Your task to perform on an android device: Do I have any events this weekend? Image 0: 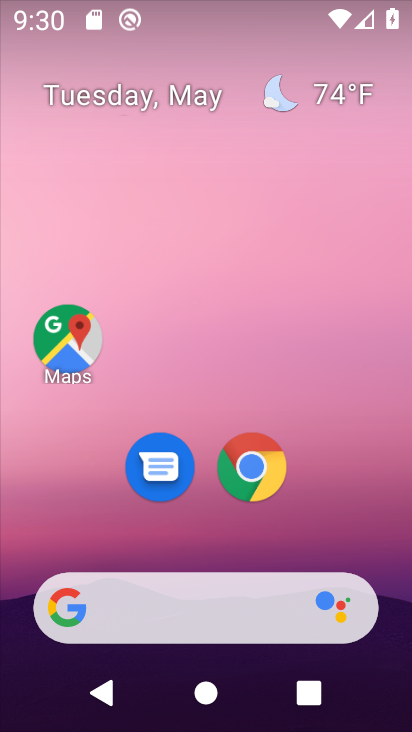
Step 0: drag from (337, 535) to (311, 108)
Your task to perform on an android device: Do I have any events this weekend? Image 1: 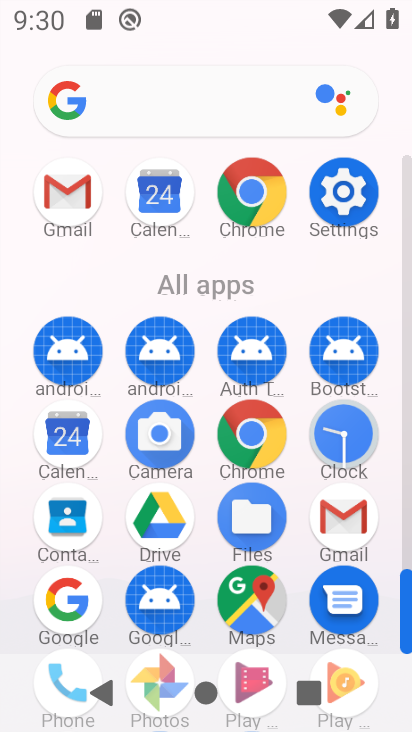
Step 1: click (61, 444)
Your task to perform on an android device: Do I have any events this weekend? Image 2: 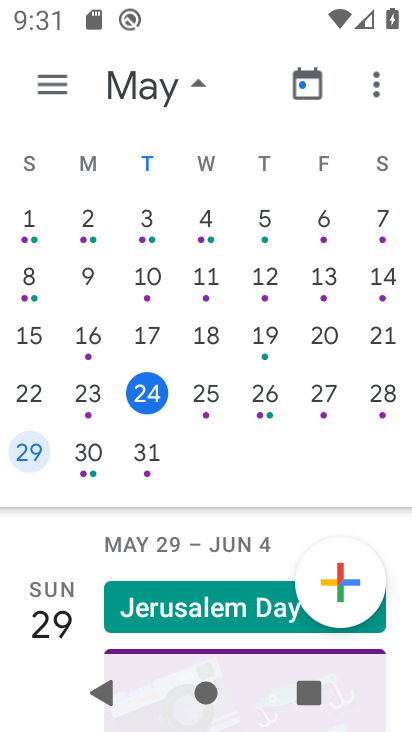
Step 2: task complete